Your task to perform on an android device: Search for macbook pro on amazon, select the first entry, and add it to the cart. Image 0: 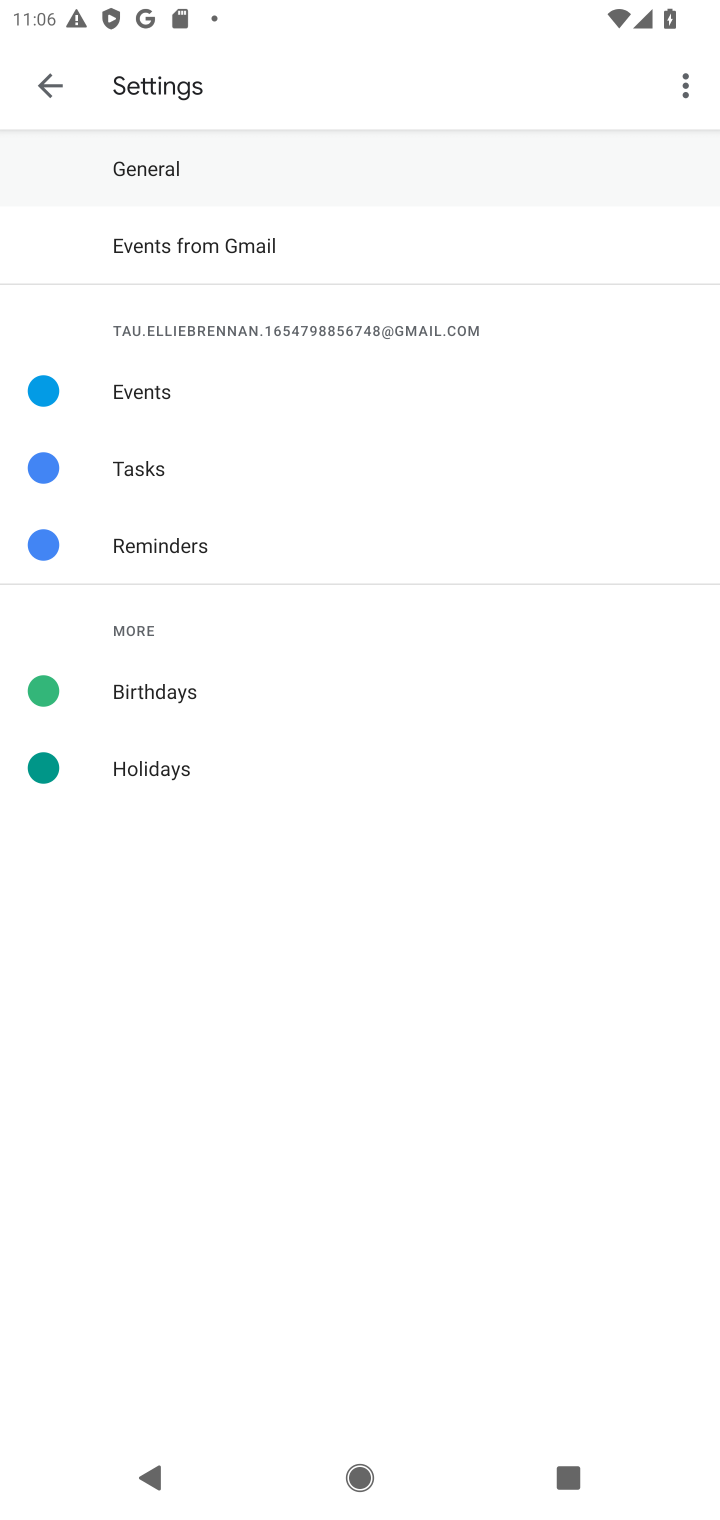
Step 0: task complete